Your task to perform on an android device: change your default location settings in chrome Image 0: 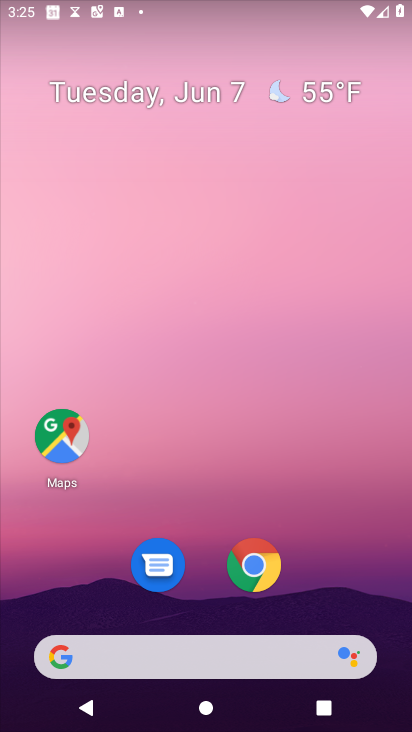
Step 0: drag from (170, 628) to (217, 11)
Your task to perform on an android device: change your default location settings in chrome Image 1: 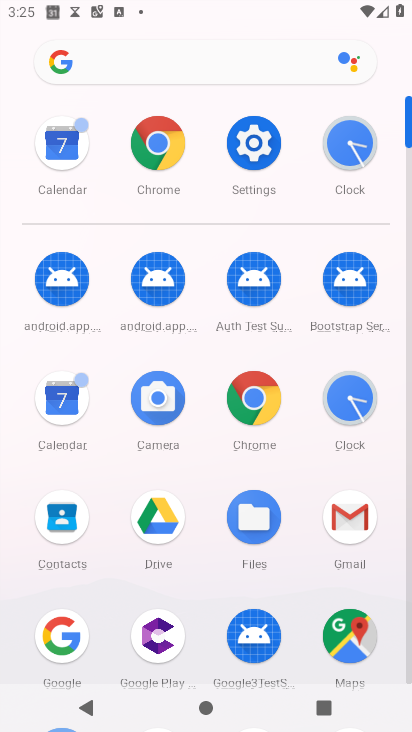
Step 1: click (253, 405)
Your task to perform on an android device: change your default location settings in chrome Image 2: 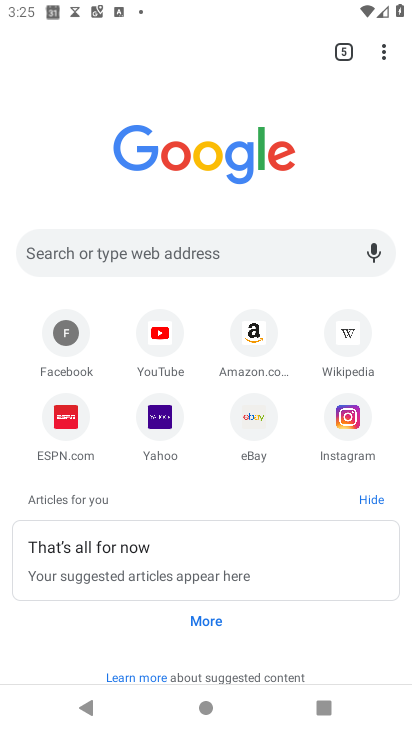
Step 2: click (382, 47)
Your task to perform on an android device: change your default location settings in chrome Image 3: 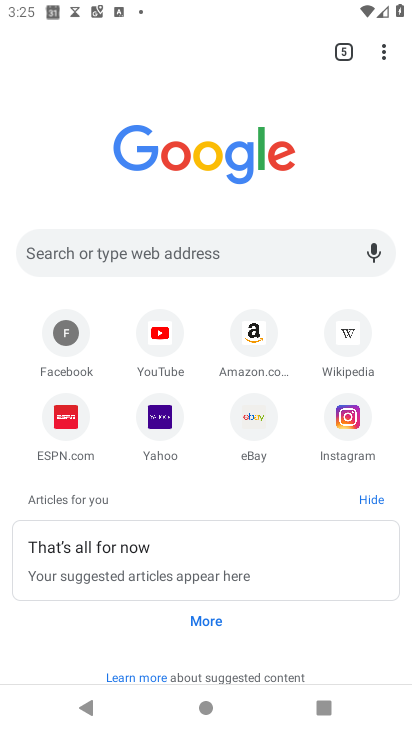
Step 3: drag from (383, 49) to (245, 446)
Your task to perform on an android device: change your default location settings in chrome Image 4: 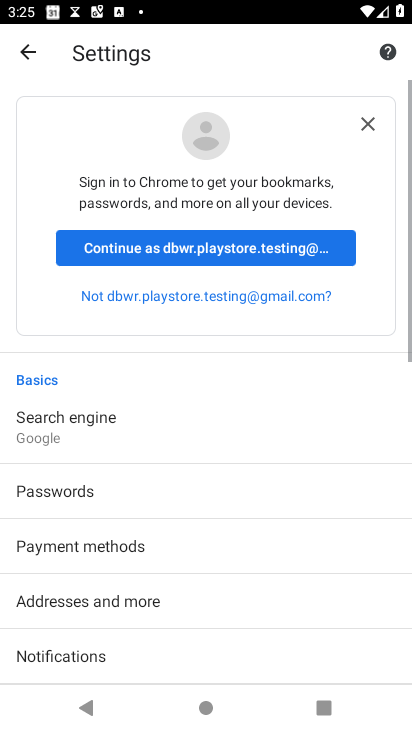
Step 4: drag from (173, 567) to (209, 126)
Your task to perform on an android device: change your default location settings in chrome Image 5: 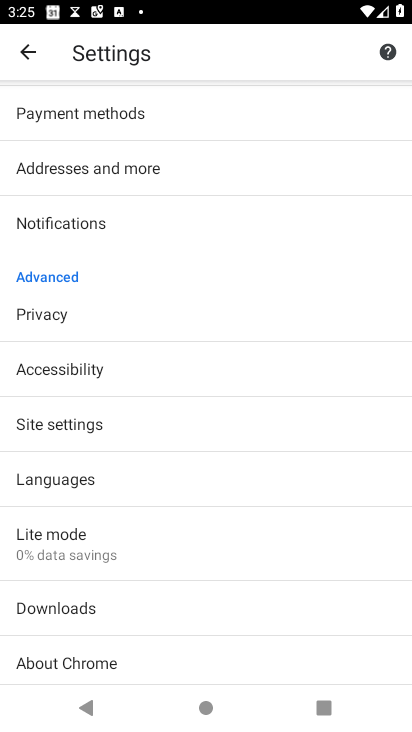
Step 5: click (105, 482)
Your task to perform on an android device: change your default location settings in chrome Image 6: 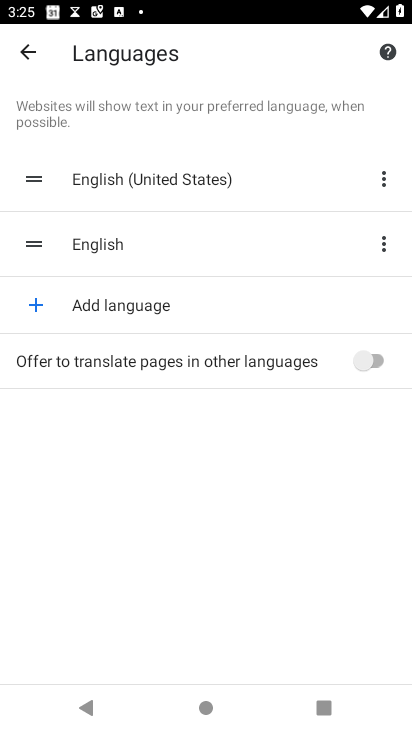
Step 6: press back button
Your task to perform on an android device: change your default location settings in chrome Image 7: 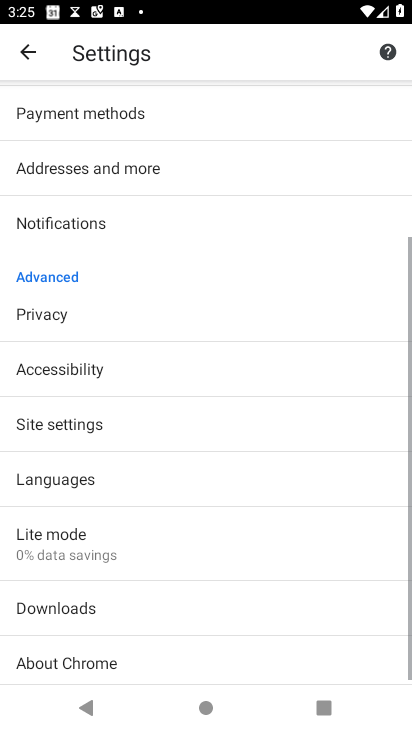
Step 7: click (119, 427)
Your task to perform on an android device: change your default location settings in chrome Image 8: 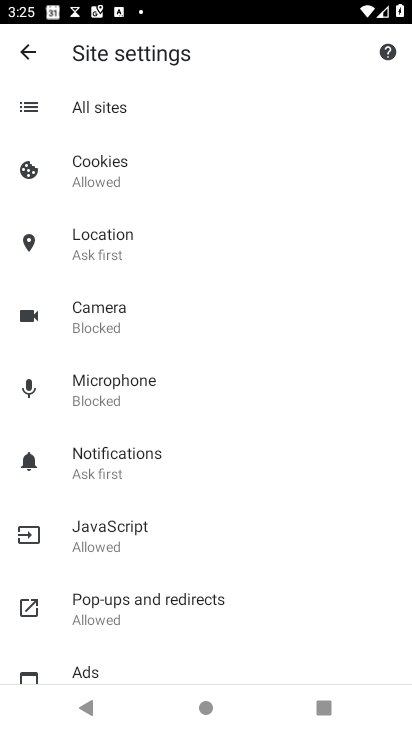
Step 8: drag from (137, 616) to (151, 302)
Your task to perform on an android device: change your default location settings in chrome Image 9: 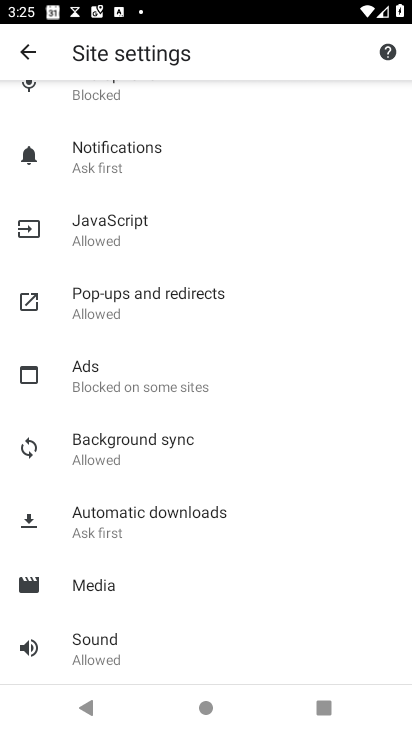
Step 9: drag from (162, 204) to (186, 590)
Your task to perform on an android device: change your default location settings in chrome Image 10: 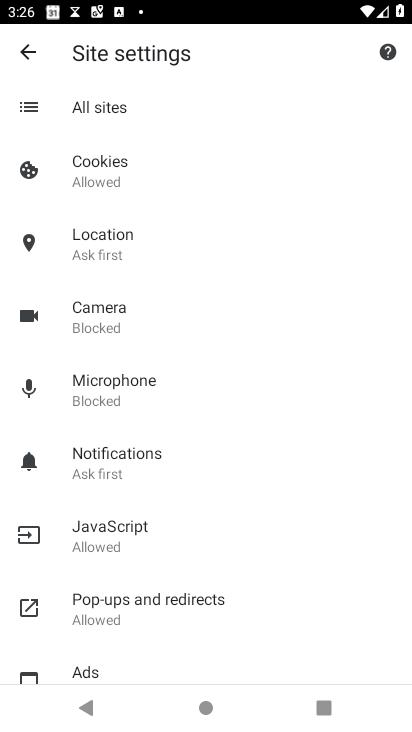
Step 10: click (141, 257)
Your task to perform on an android device: change your default location settings in chrome Image 11: 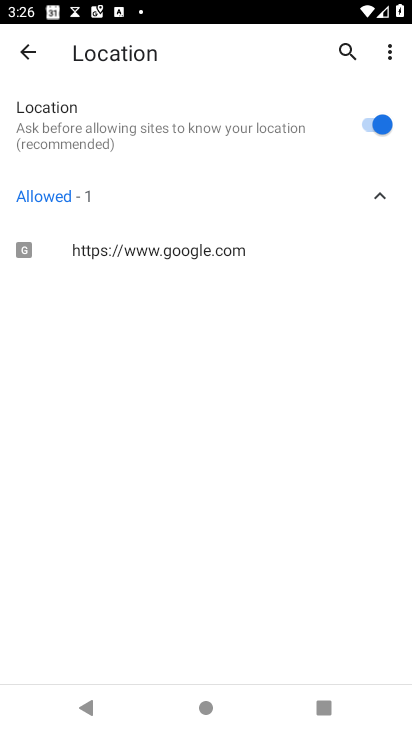
Step 11: task complete